Your task to perform on an android device: Go to eBay Image 0: 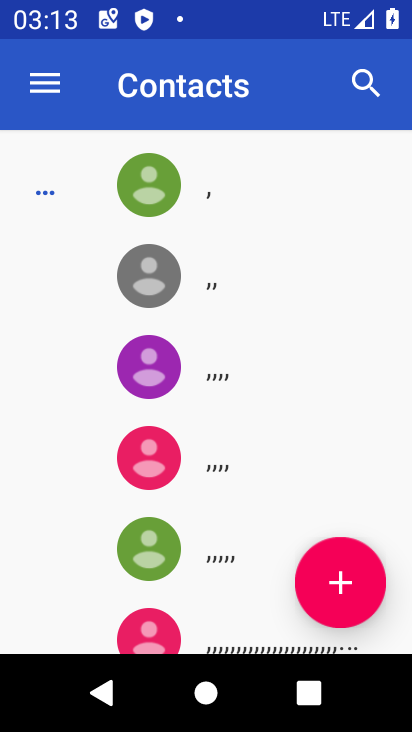
Step 0: press home button
Your task to perform on an android device: Go to eBay Image 1: 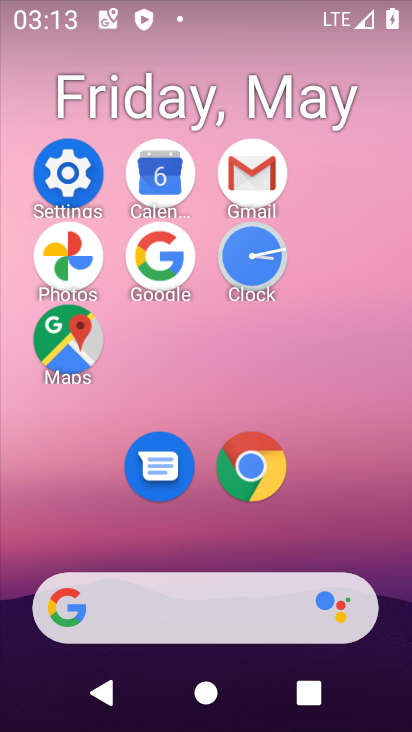
Step 1: click (262, 463)
Your task to perform on an android device: Go to eBay Image 2: 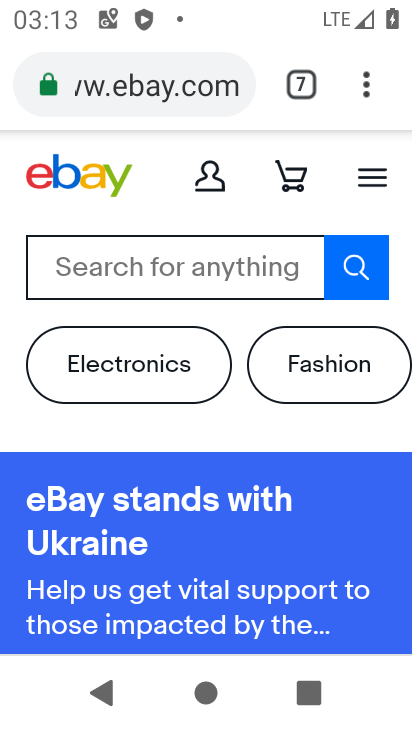
Step 2: task complete